Your task to perform on an android device: Show me recent news Image 0: 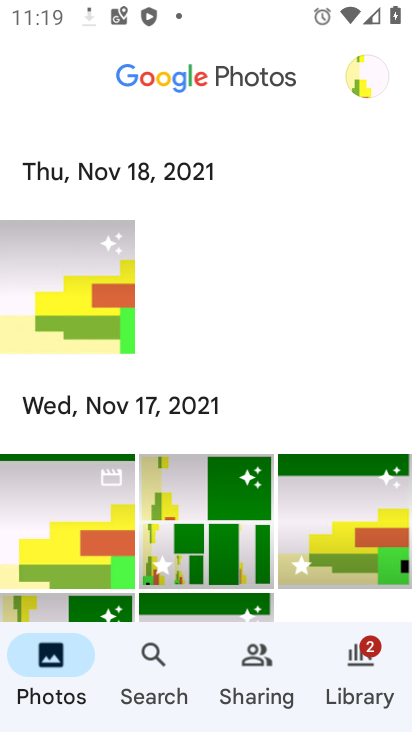
Step 0: press home button
Your task to perform on an android device: Show me recent news Image 1: 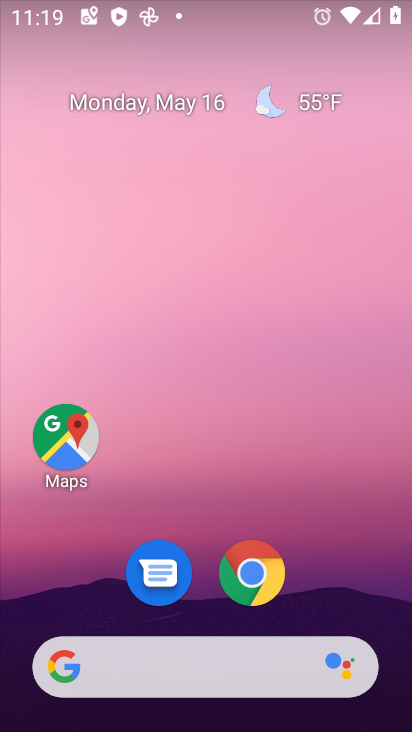
Step 1: task complete